Your task to perform on an android device: toggle show notifications on the lock screen Image 0: 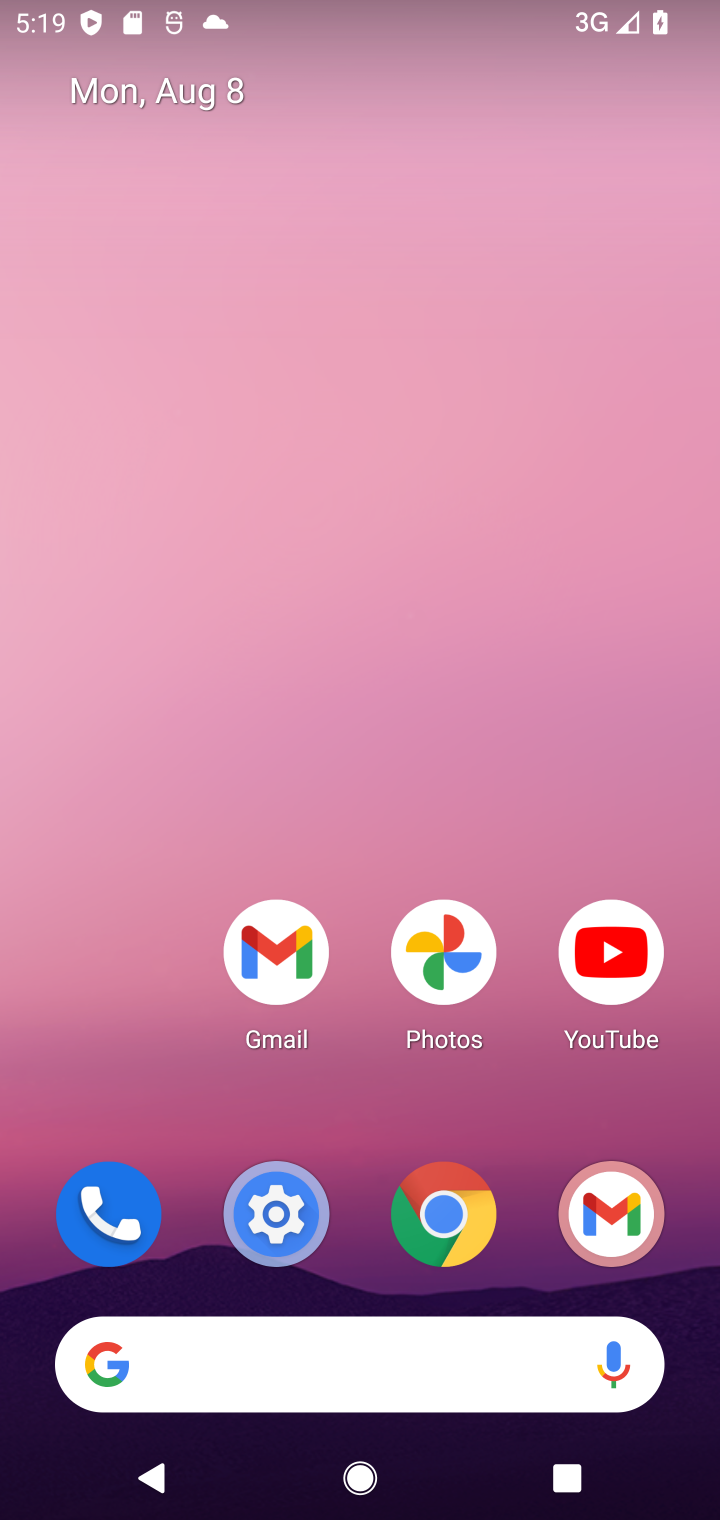
Step 0: drag from (369, 1242) to (369, 152)
Your task to perform on an android device: toggle show notifications on the lock screen Image 1: 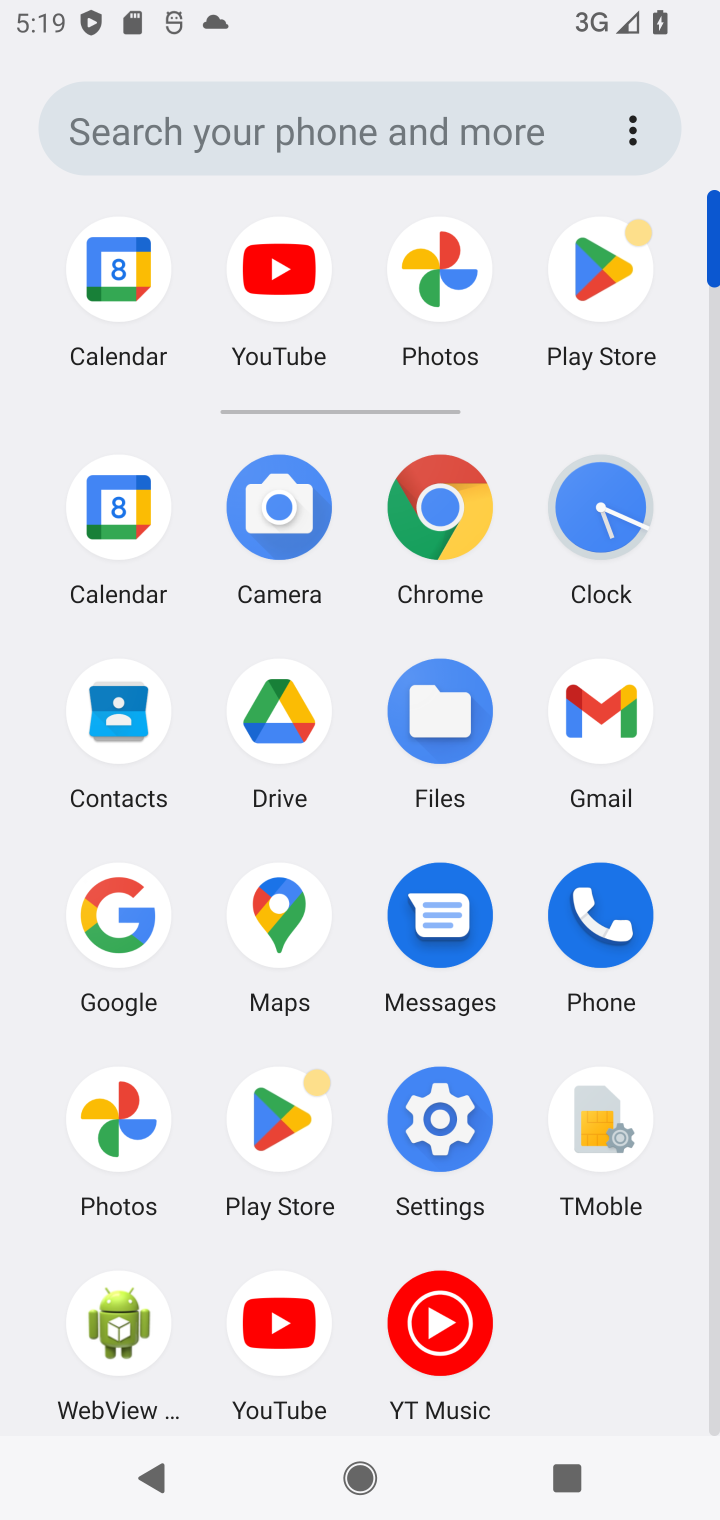
Step 1: click (431, 1121)
Your task to perform on an android device: toggle show notifications on the lock screen Image 2: 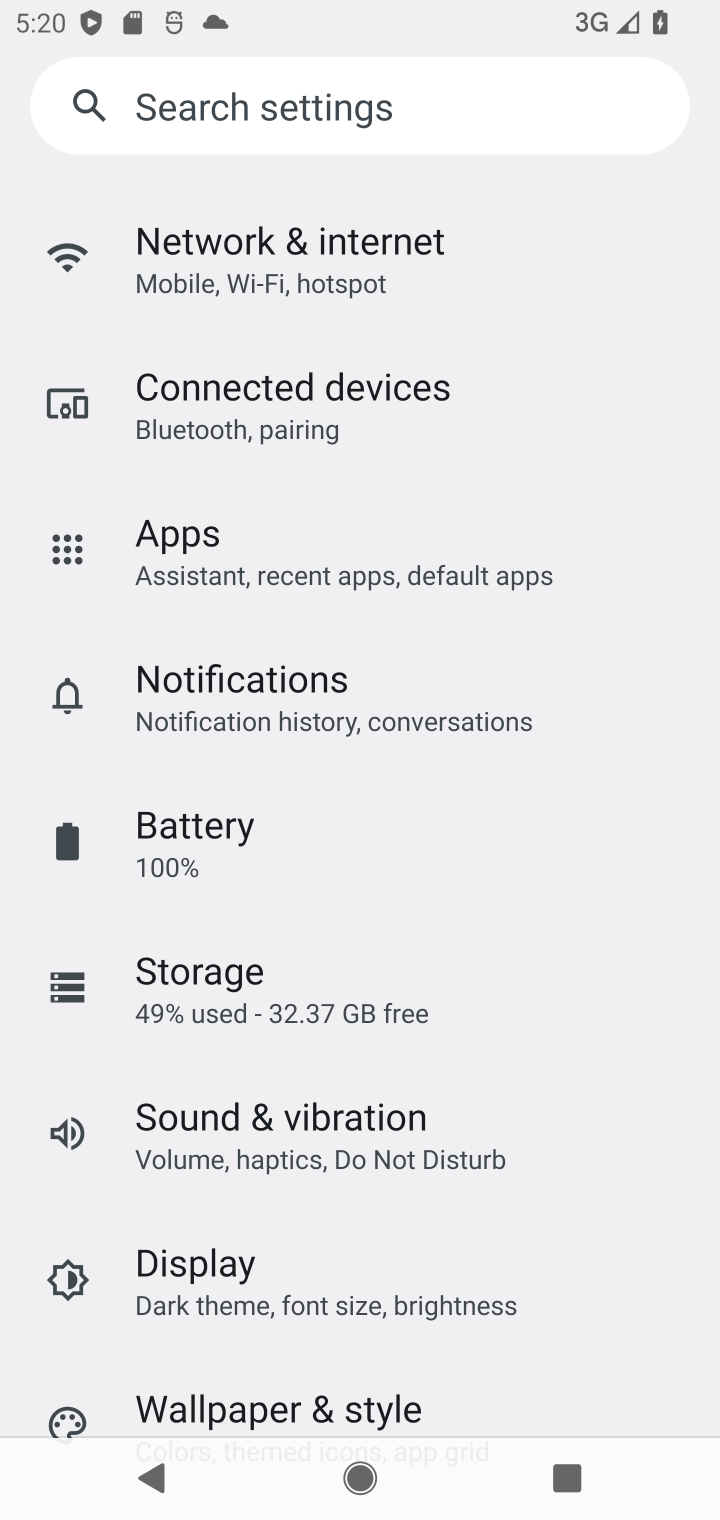
Step 2: click (221, 693)
Your task to perform on an android device: toggle show notifications on the lock screen Image 3: 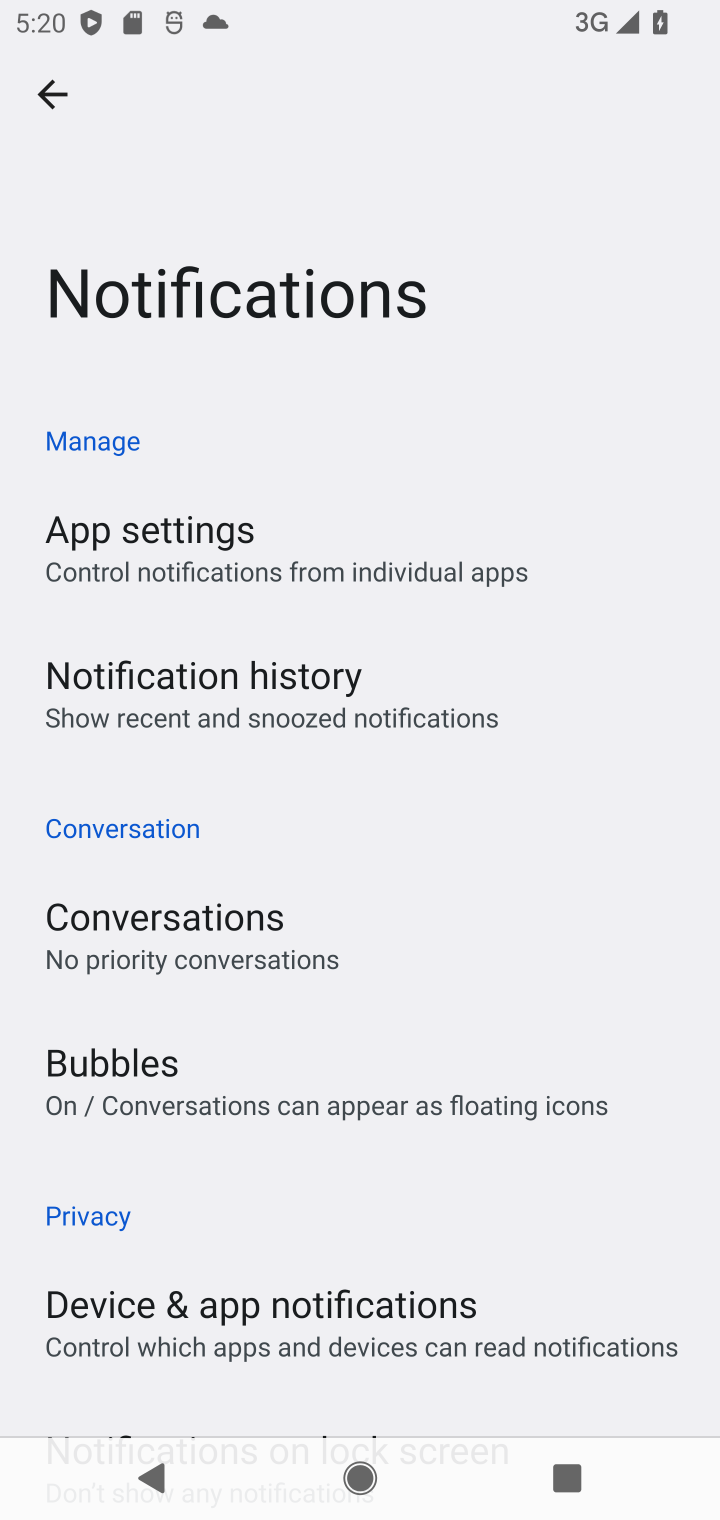
Step 3: drag from (210, 1271) to (210, 731)
Your task to perform on an android device: toggle show notifications on the lock screen Image 4: 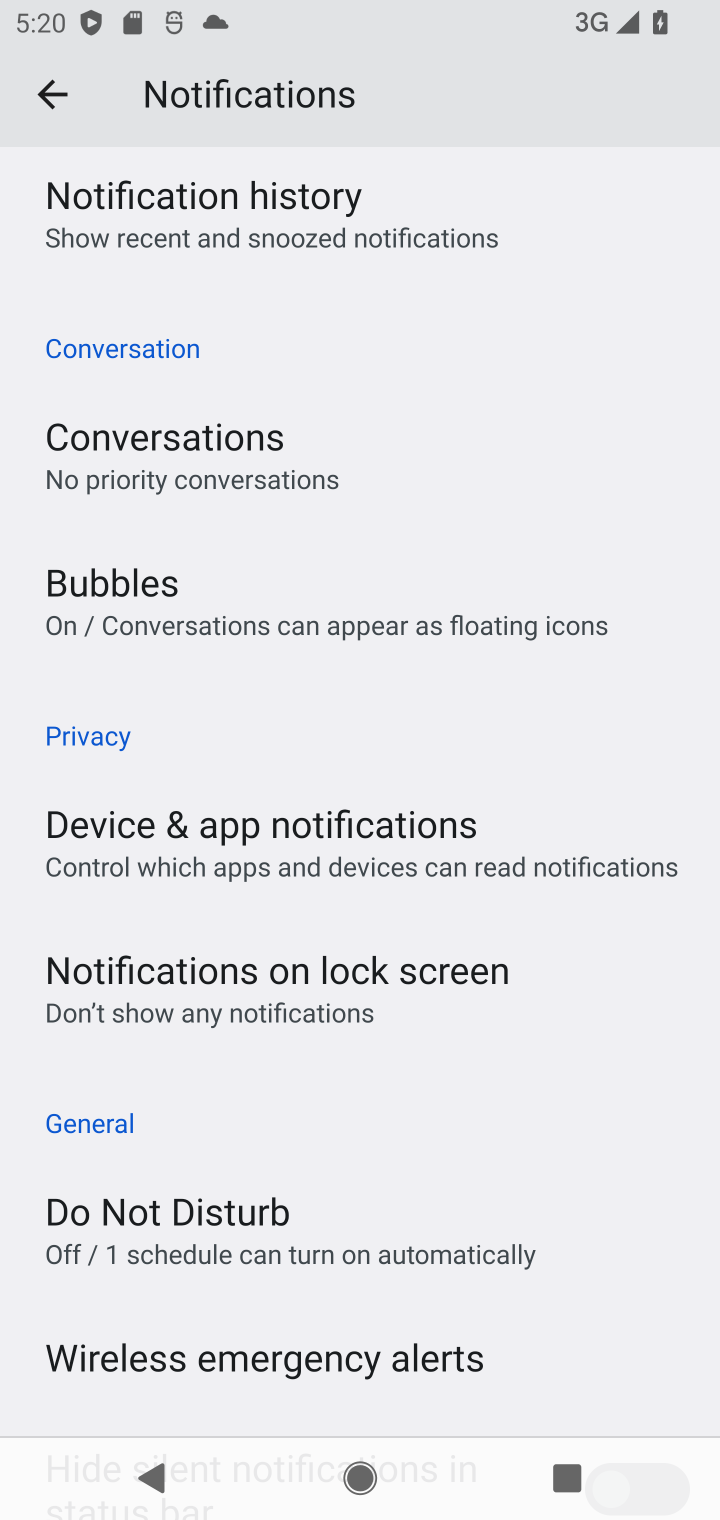
Step 4: drag from (229, 1323) to (251, 845)
Your task to perform on an android device: toggle show notifications on the lock screen Image 5: 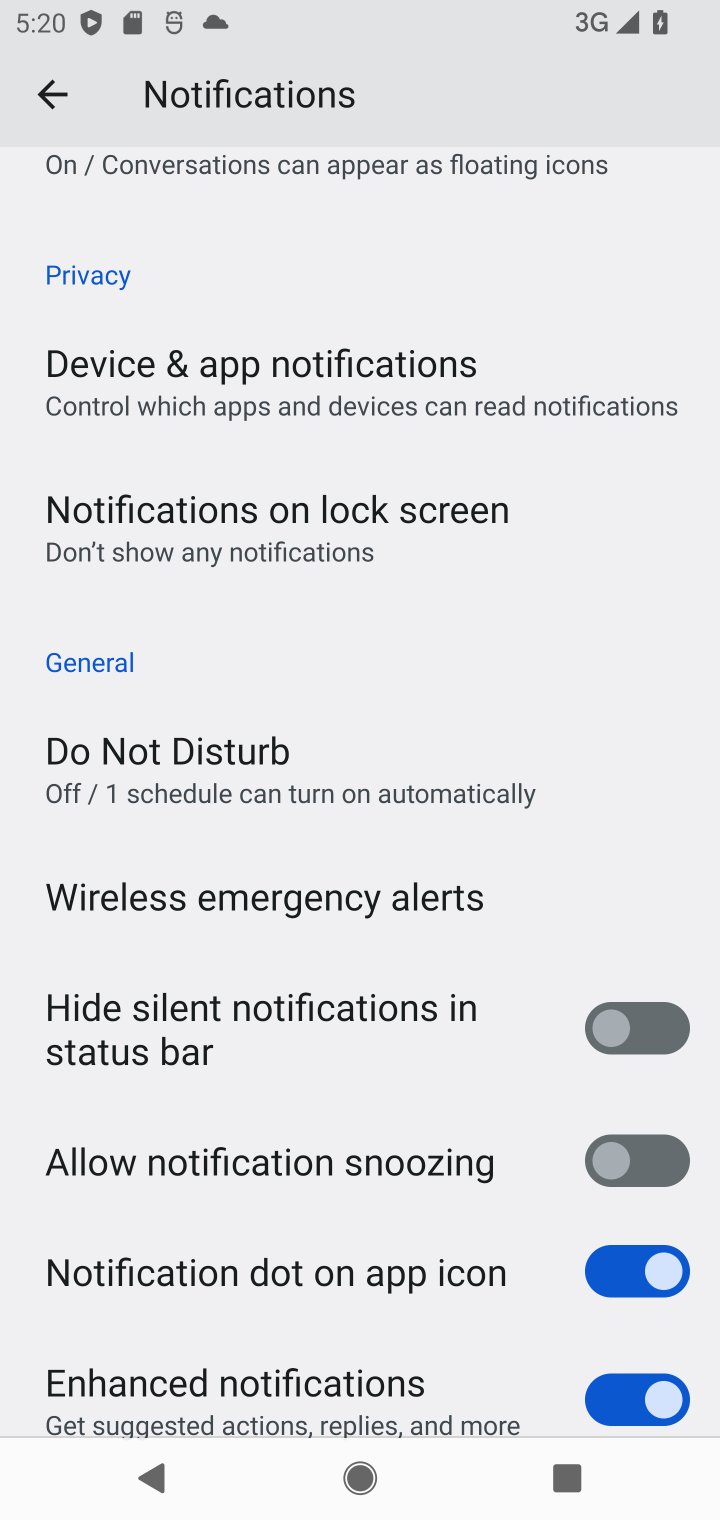
Step 5: click (209, 532)
Your task to perform on an android device: toggle show notifications on the lock screen Image 6: 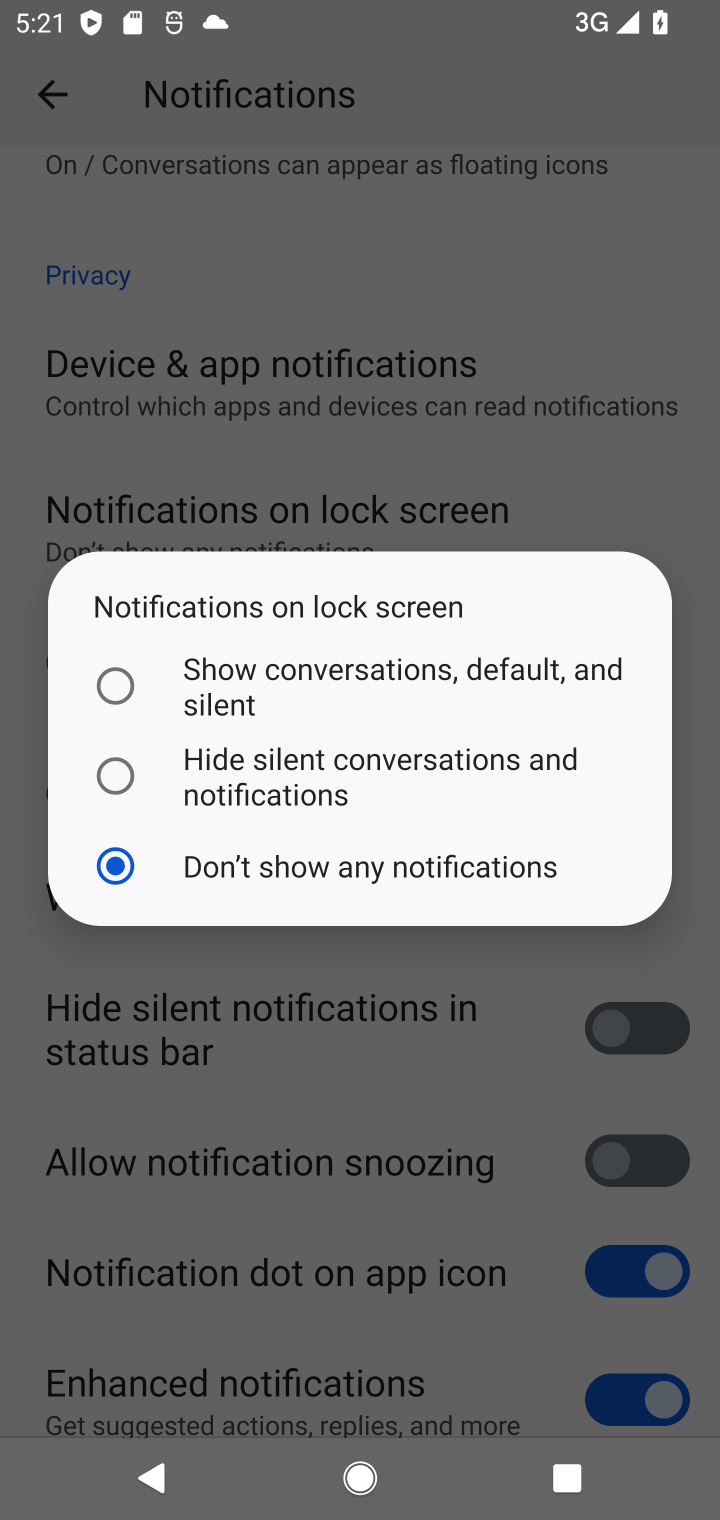
Step 6: click (115, 678)
Your task to perform on an android device: toggle show notifications on the lock screen Image 7: 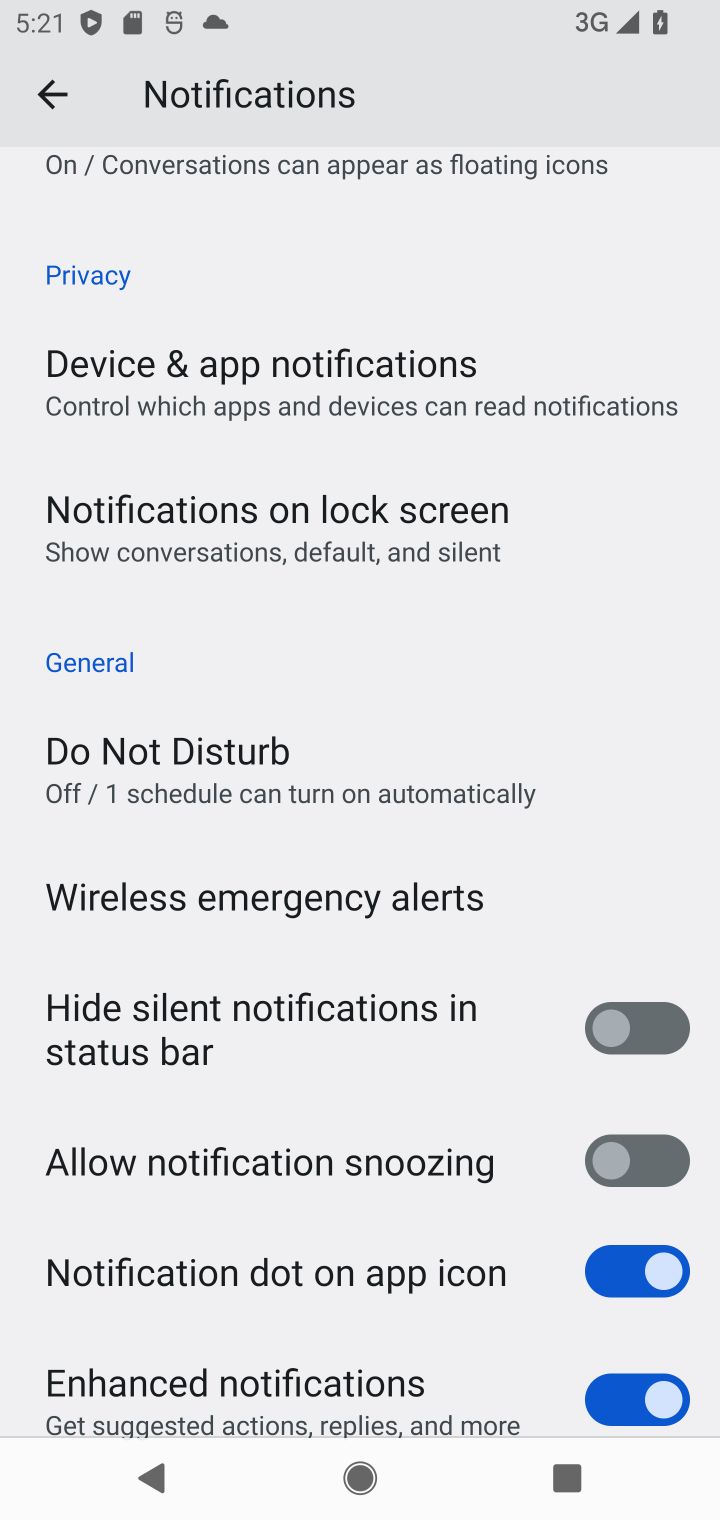
Step 7: task complete